Your task to perform on an android device: Play the last video I watched on Youtube Image 0: 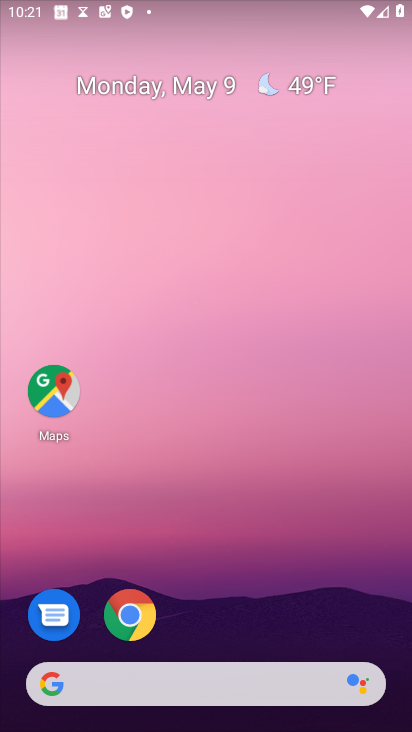
Step 0: drag from (226, 590) to (243, 230)
Your task to perform on an android device: Play the last video I watched on Youtube Image 1: 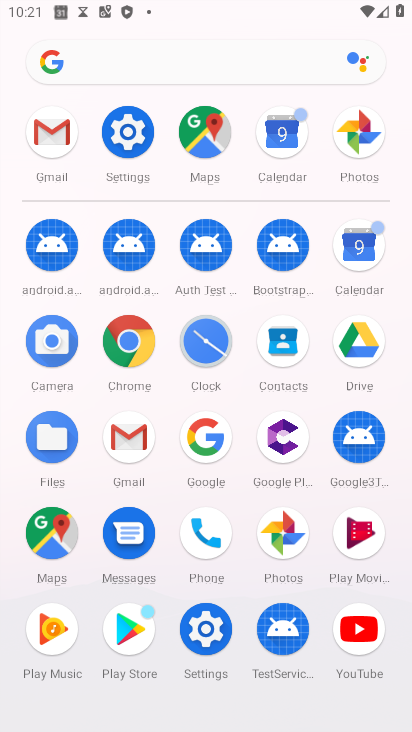
Step 1: click (364, 642)
Your task to perform on an android device: Play the last video I watched on Youtube Image 2: 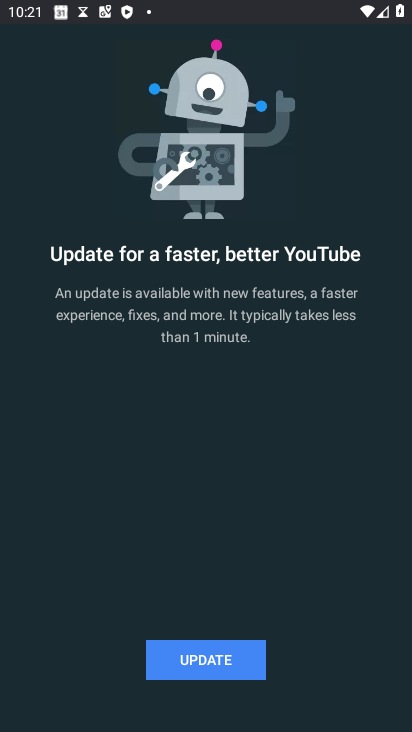
Step 2: click (214, 660)
Your task to perform on an android device: Play the last video I watched on Youtube Image 3: 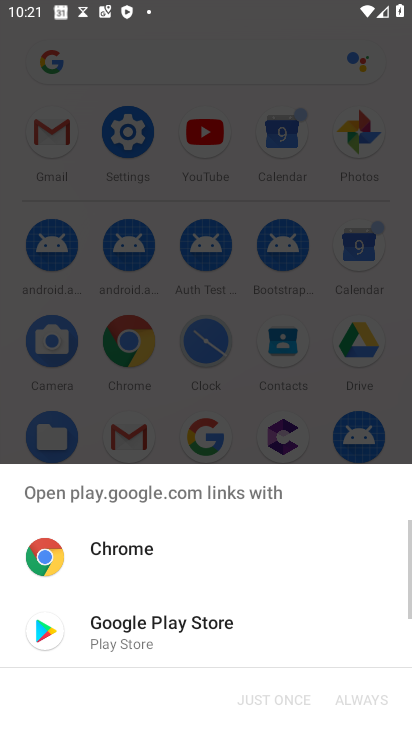
Step 3: click (209, 598)
Your task to perform on an android device: Play the last video I watched on Youtube Image 4: 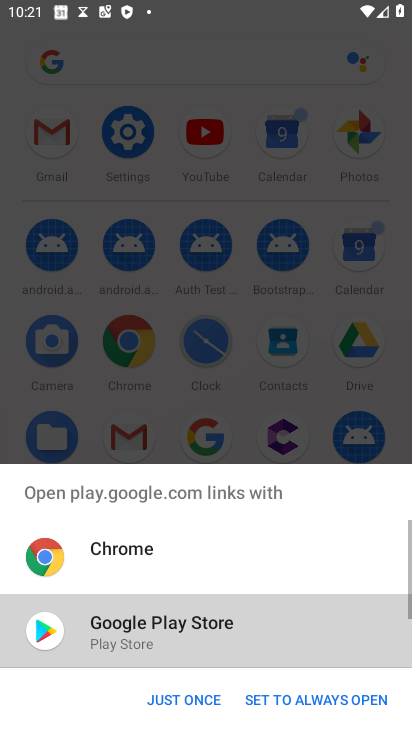
Step 4: click (198, 618)
Your task to perform on an android device: Play the last video I watched on Youtube Image 5: 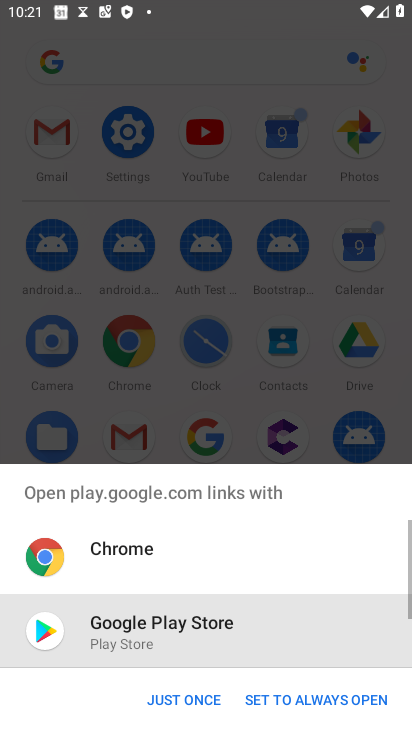
Step 5: click (199, 698)
Your task to perform on an android device: Play the last video I watched on Youtube Image 6: 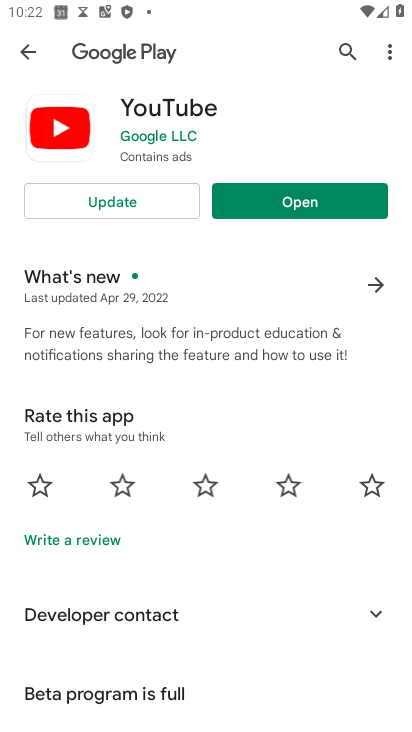
Step 6: click (82, 202)
Your task to perform on an android device: Play the last video I watched on Youtube Image 7: 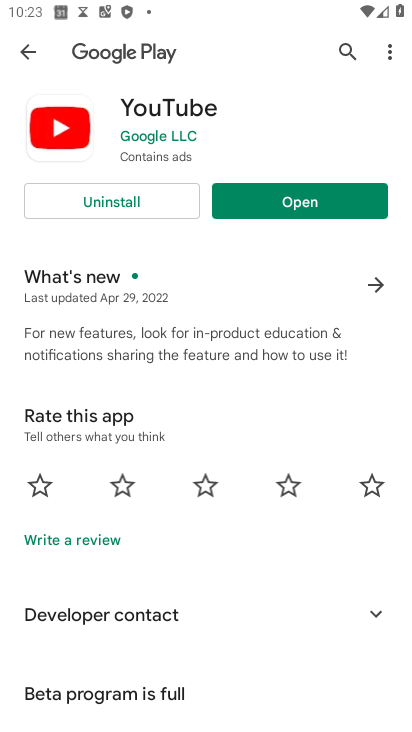
Step 7: click (295, 203)
Your task to perform on an android device: Play the last video I watched on Youtube Image 8: 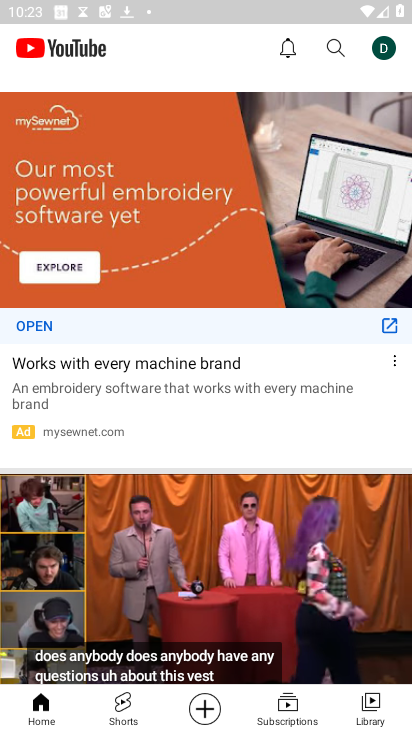
Step 8: click (372, 698)
Your task to perform on an android device: Play the last video I watched on Youtube Image 9: 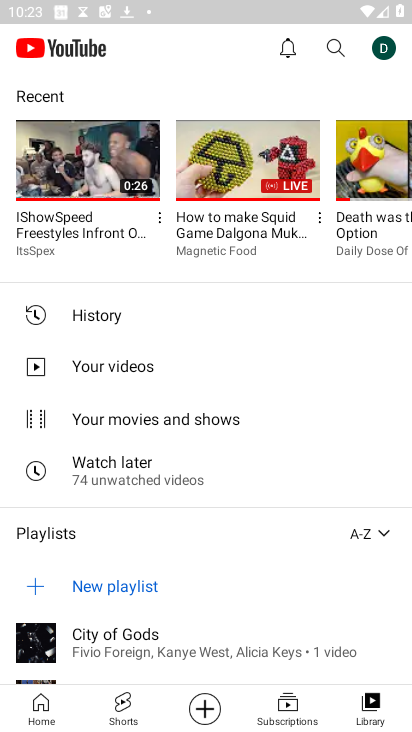
Step 9: click (113, 311)
Your task to perform on an android device: Play the last video I watched on Youtube Image 10: 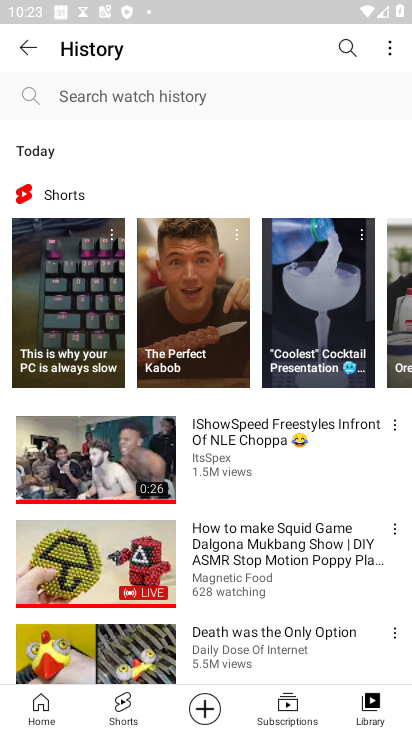
Step 10: click (134, 445)
Your task to perform on an android device: Play the last video I watched on Youtube Image 11: 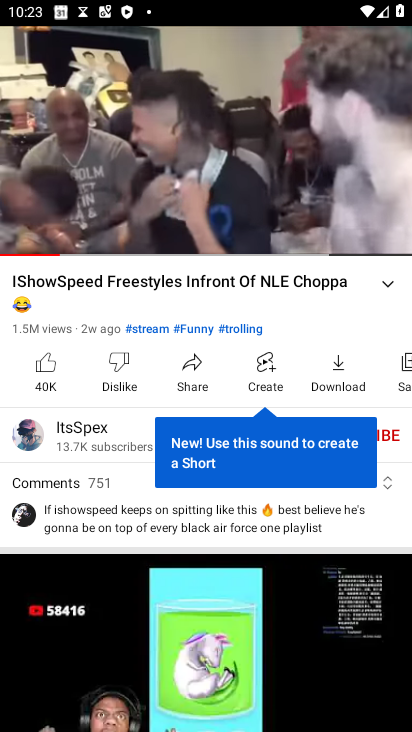
Step 11: task complete